Your task to perform on an android device: open a bookmark in the chrome app Image 0: 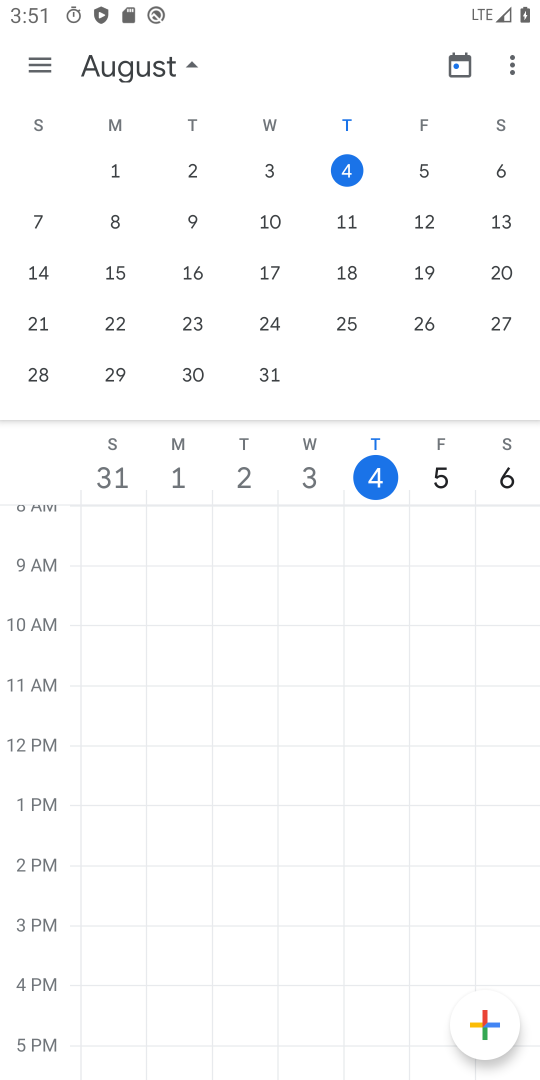
Step 0: press home button
Your task to perform on an android device: open a bookmark in the chrome app Image 1: 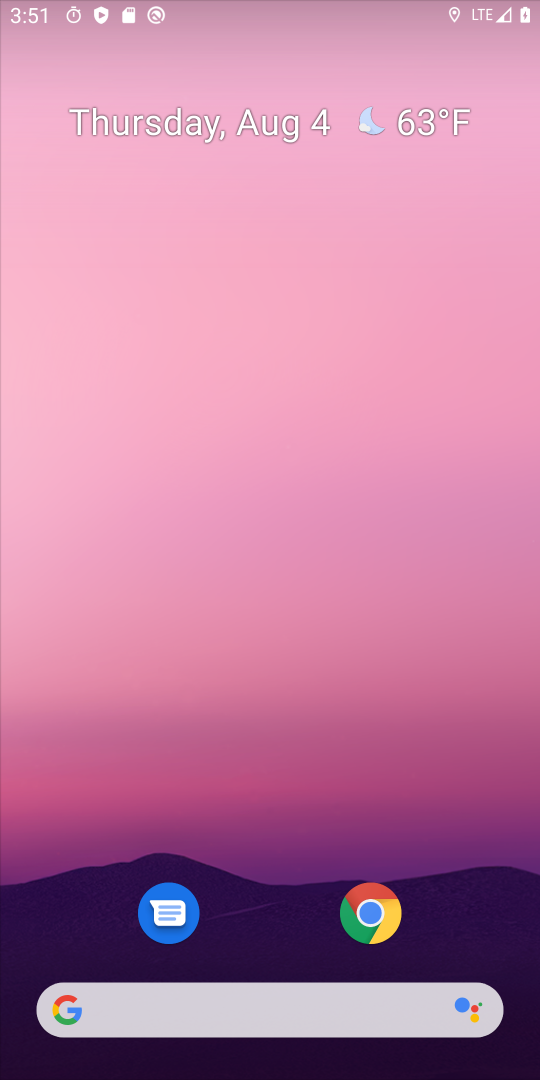
Step 1: drag from (382, 1003) to (350, 0)
Your task to perform on an android device: open a bookmark in the chrome app Image 2: 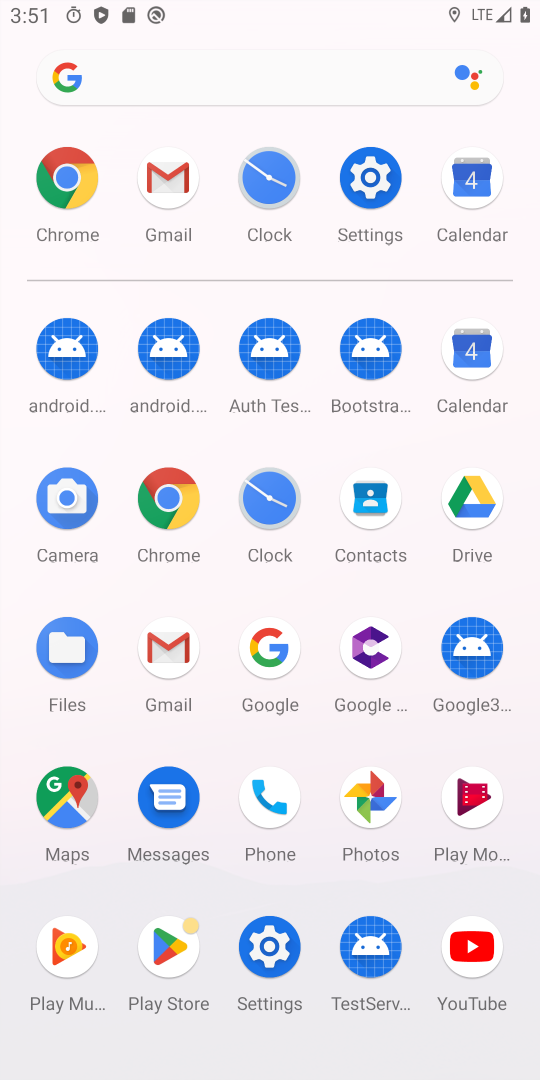
Step 2: click (156, 503)
Your task to perform on an android device: open a bookmark in the chrome app Image 3: 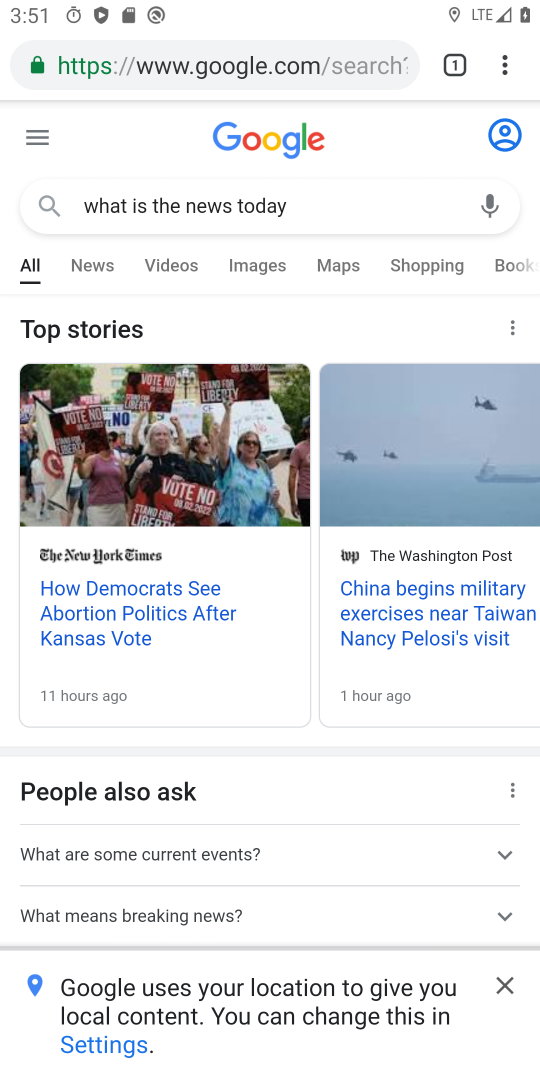
Step 3: task complete